Your task to perform on an android device: turn pop-ups on in chrome Image 0: 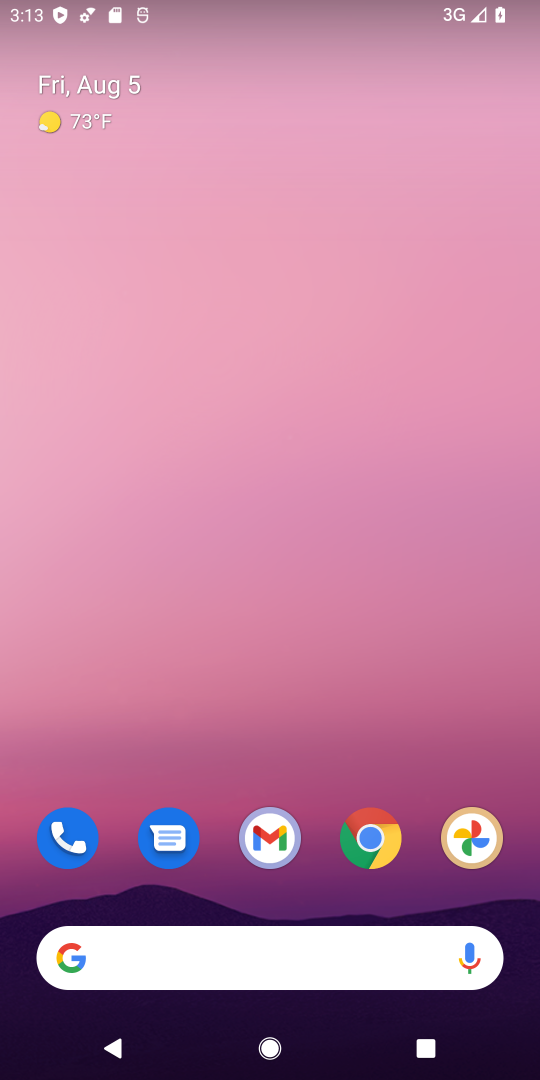
Step 0: drag from (169, 977) to (224, 369)
Your task to perform on an android device: turn pop-ups on in chrome Image 1: 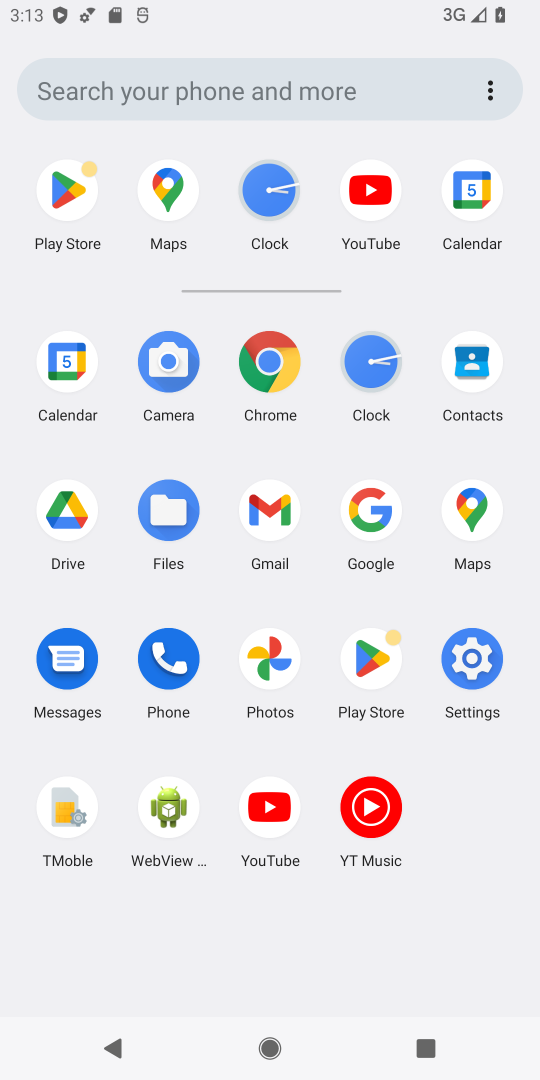
Step 1: click (259, 358)
Your task to perform on an android device: turn pop-ups on in chrome Image 2: 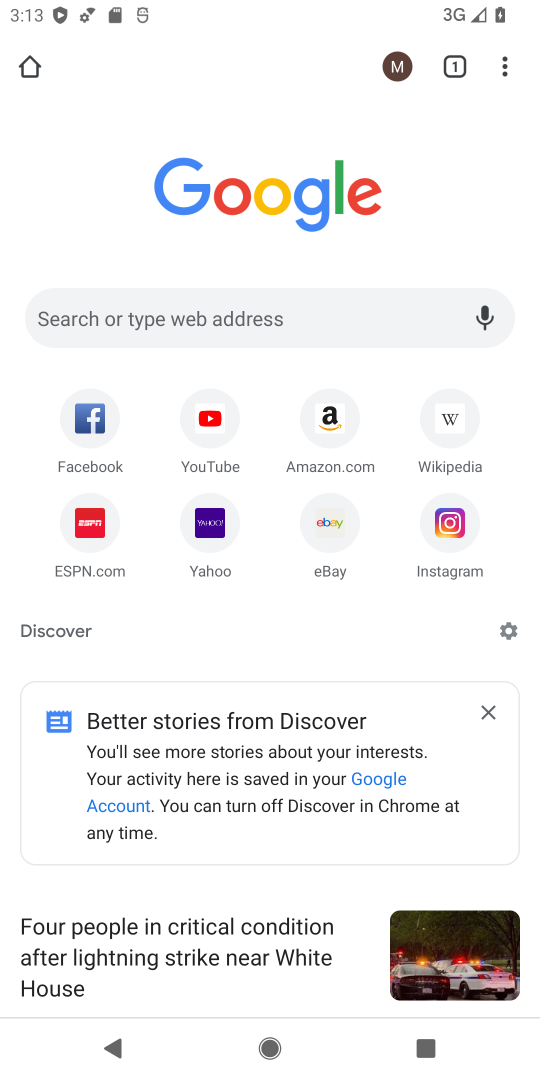
Step 2: click (506, 64)
Your task to perform on an android device: turn pop-ups on in chrome Image 3: 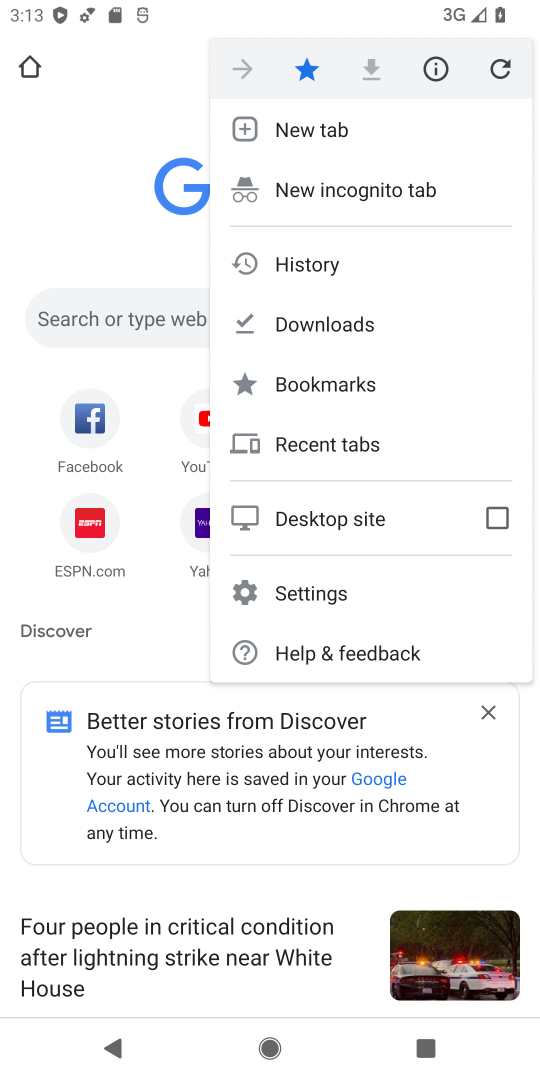
Step 3: click (339, 597)
Your task to perform on an android device: turn pop-ups on in chrome Image 4: 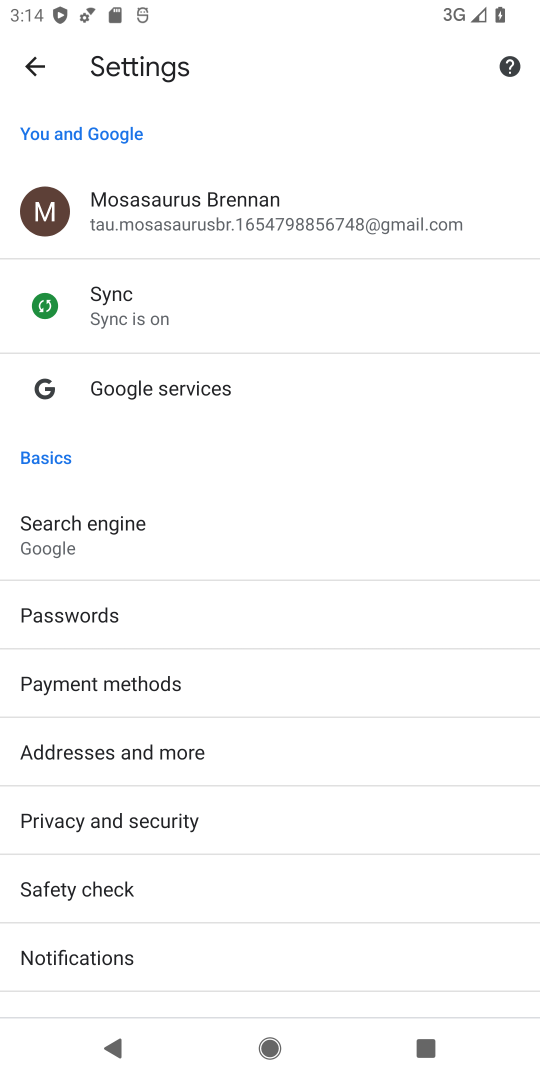
Step 4: drag from (139, 924) to (194, 396)
Your task to perform on an android device: turn pop-ups on in chrome Image 5: 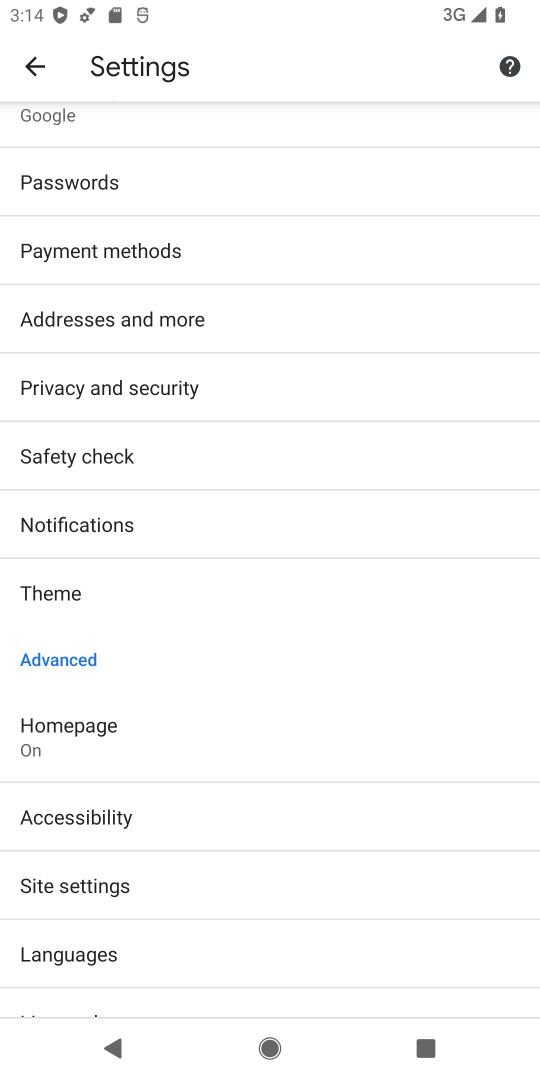
Step 5: click (163, 865)
Your task to perform on an android device: turn pop-ups on in chrome Image 6: 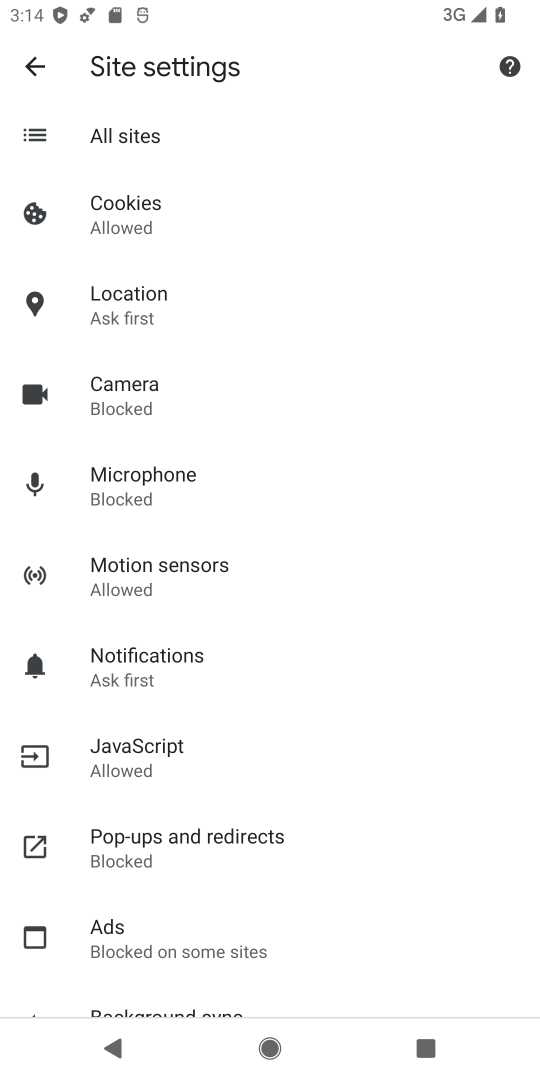
Step 6: click (240, 832)
Your task to perform on an android device: turn pop-ups on in chrome Image 7: 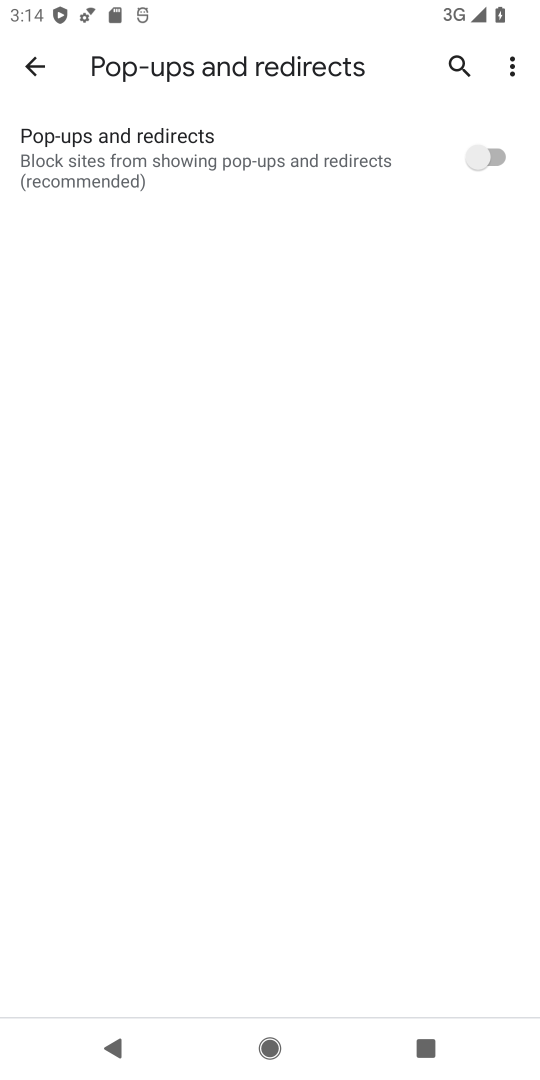
Step 7: click (485, 151)
Your task to perform on an android device: turn pop-ups on in chrome Image 8: 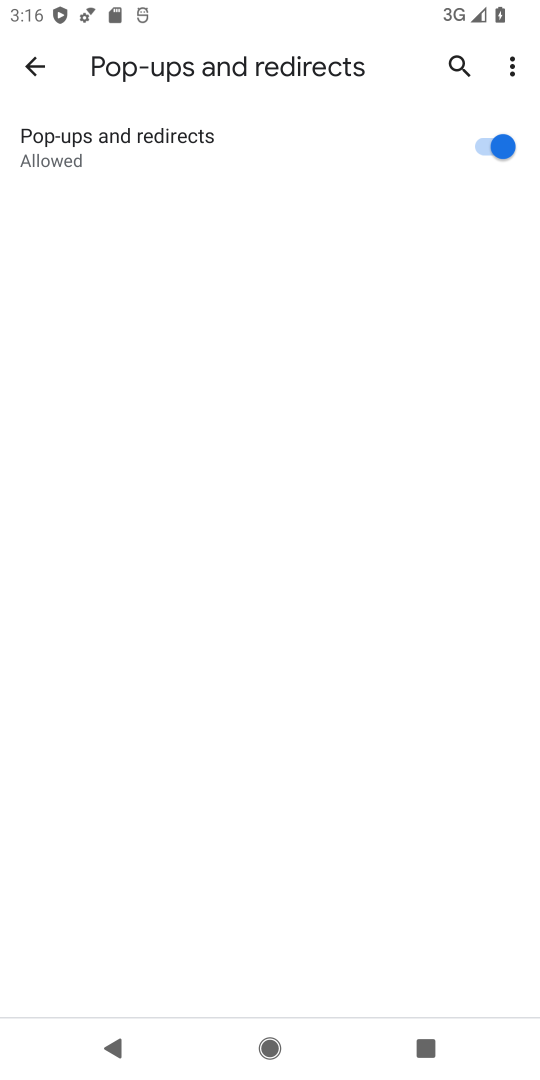
Step 8: task complete